Your task to perform on an android device: Show the shopping cart on ebay.com. Image 0: 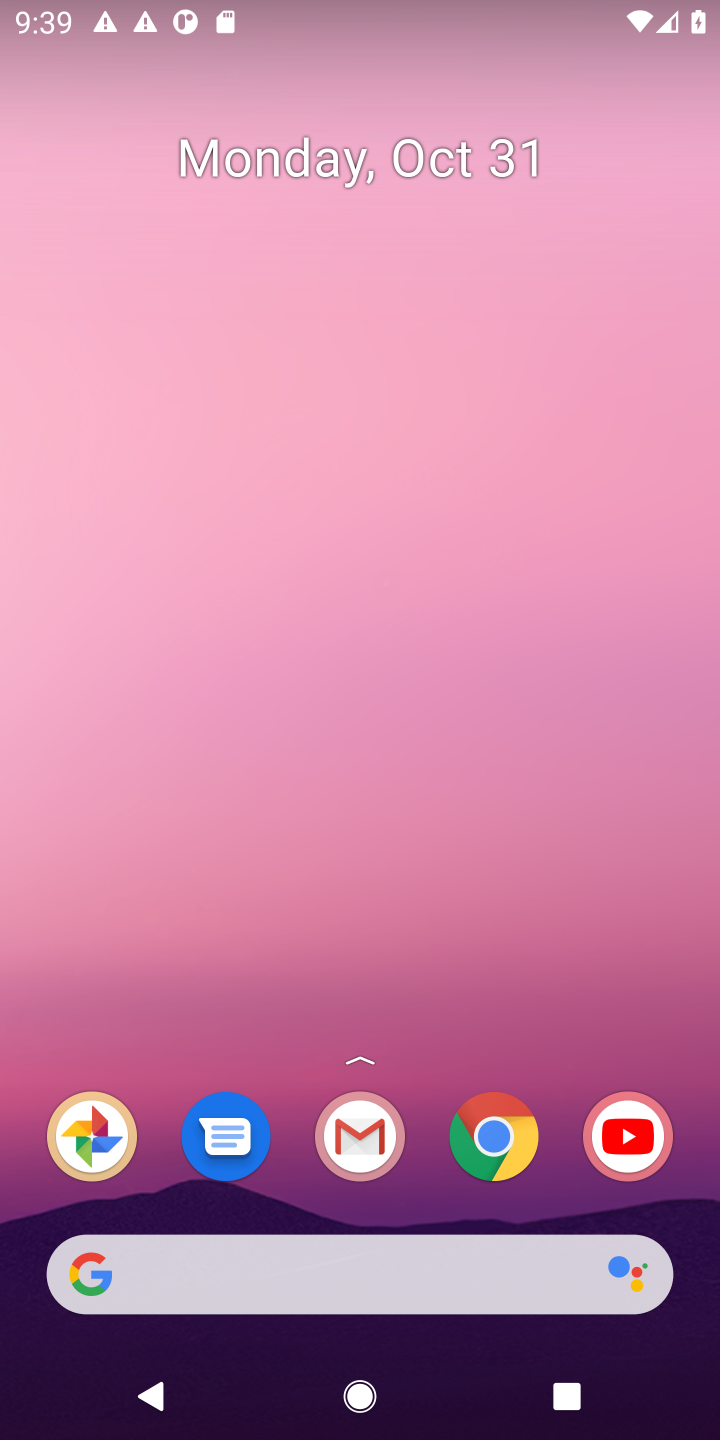
Step 0: click (134, 1268)
Your task to perform on an android device: Show the shopping cart on ebay.com. Image 1: 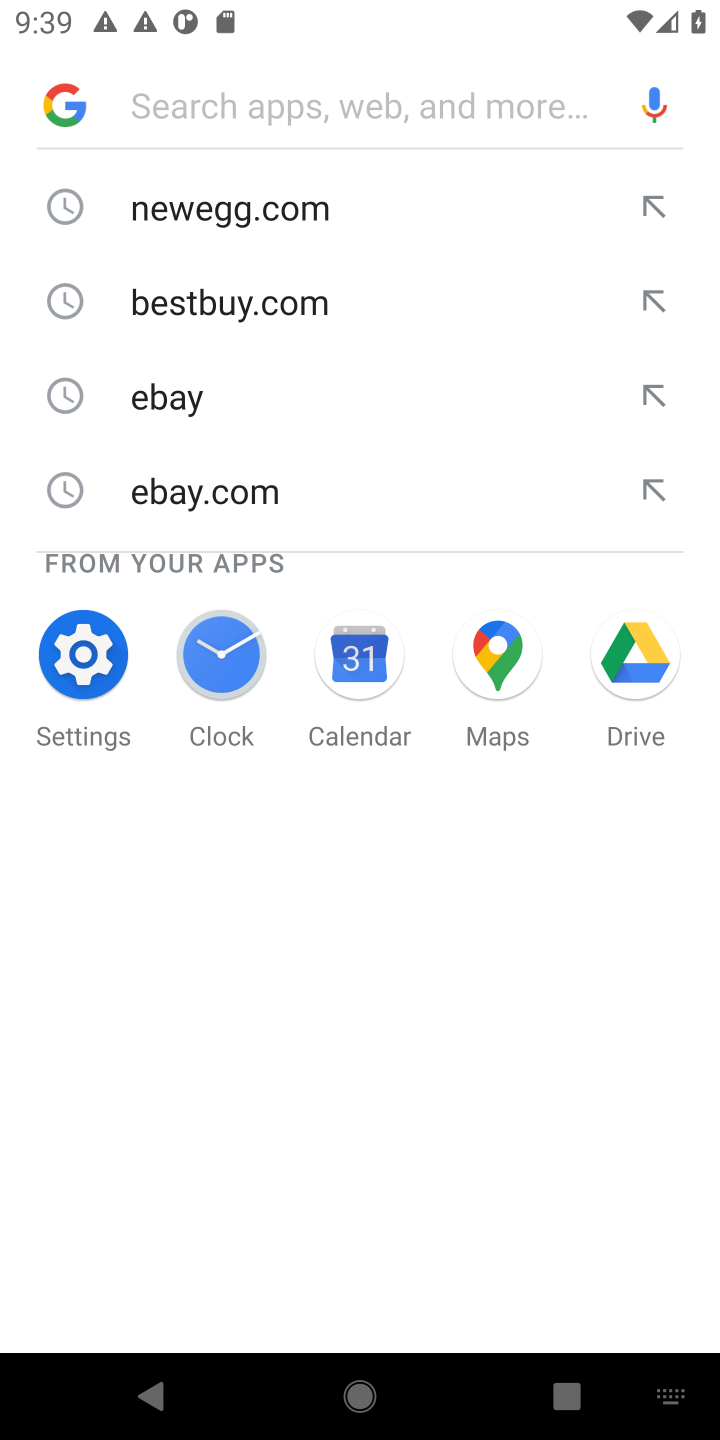
Step 1: click (215, 488)
Your task to perform on an android device: Show the shopping cart on ebay.com. Image 2: 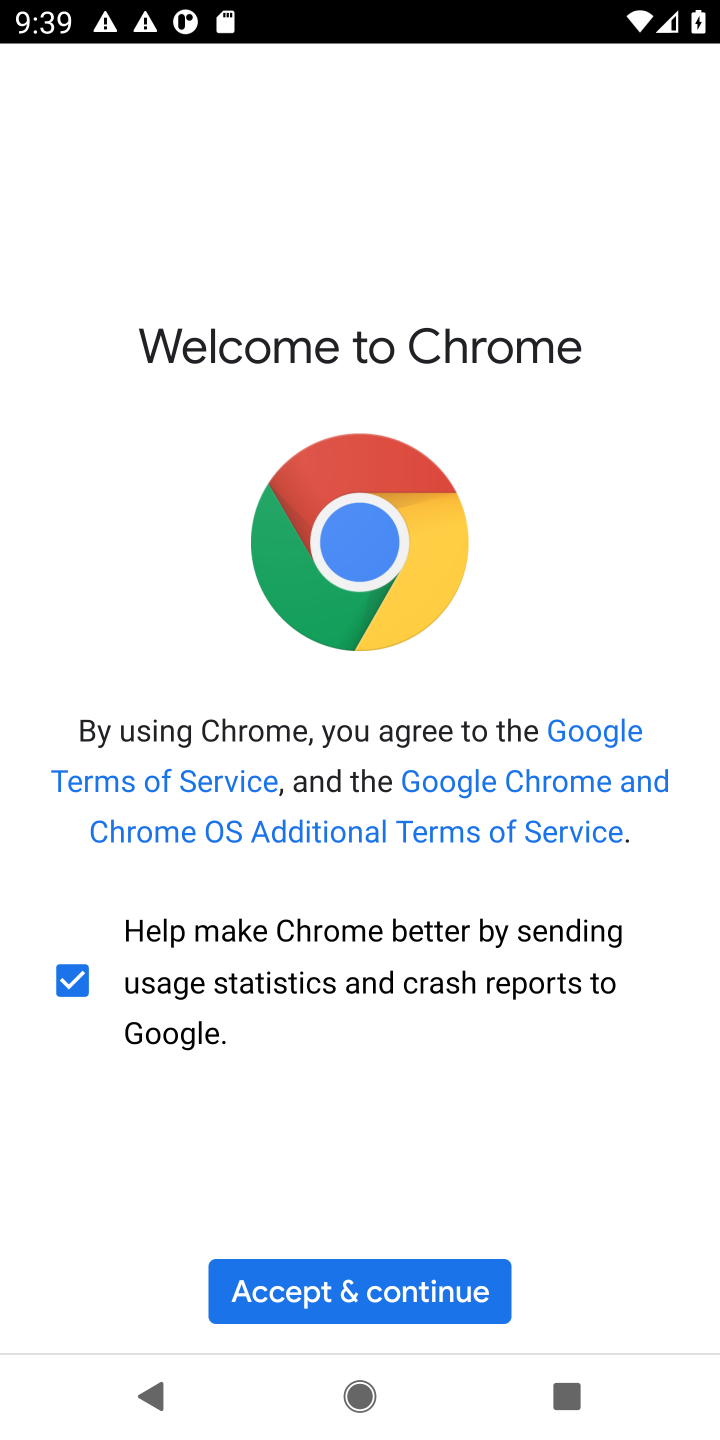
Step 2: click (349, 1299)
Your task to perform on an android device: Show the shopping cart on ebay.com. Image 3: 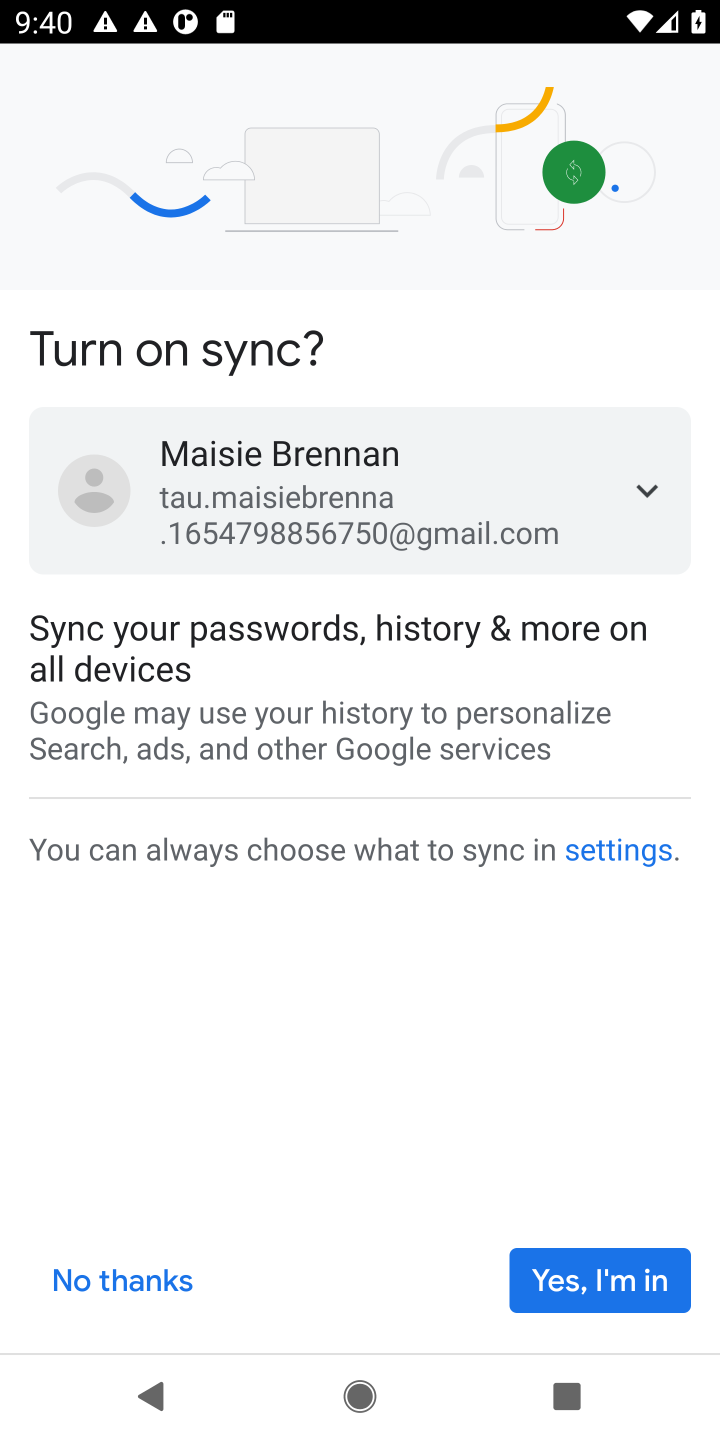
Step 3: click (607, 1271)
Your task to perform on an android device: Show the shopping cart on ebay.com. Image 4: 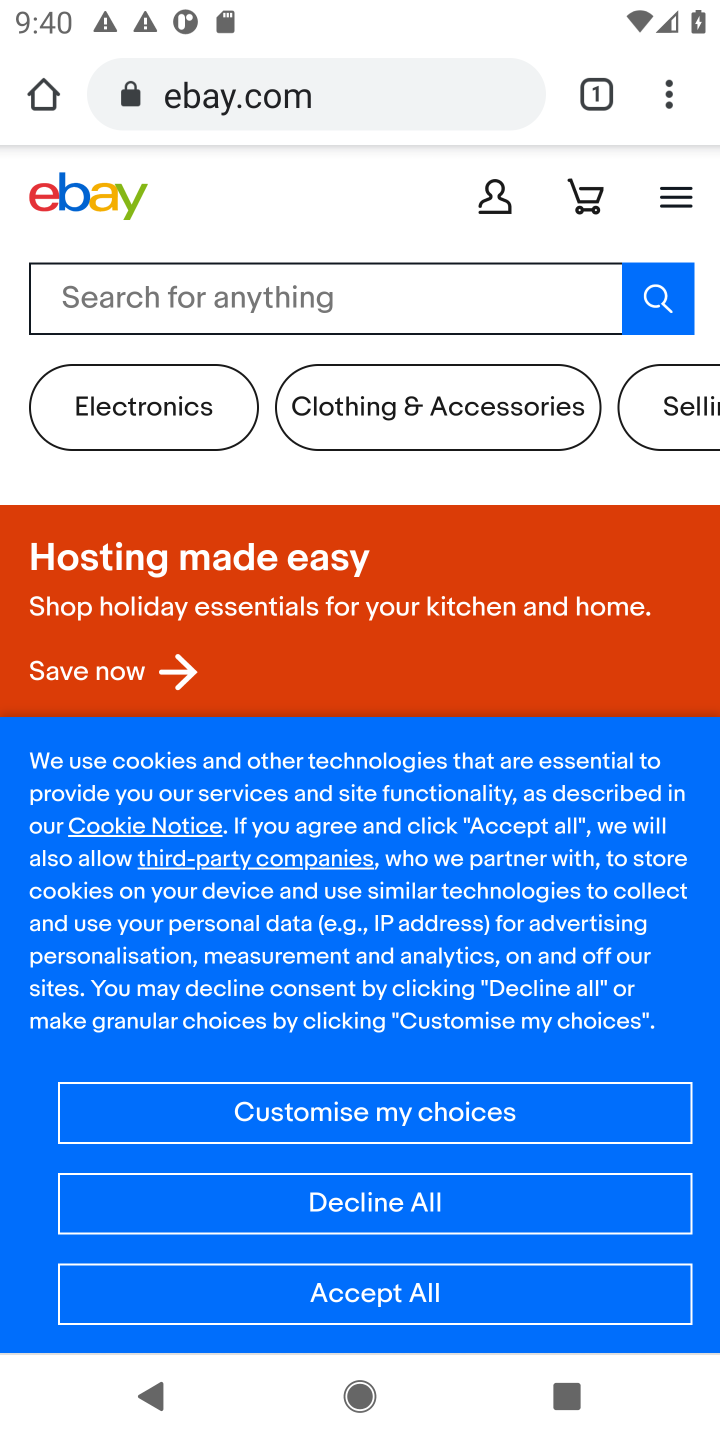
Step 4: click (593, 200)
Your task to perform on an android device: Show the shopping cart on ebay.com. Image 5: 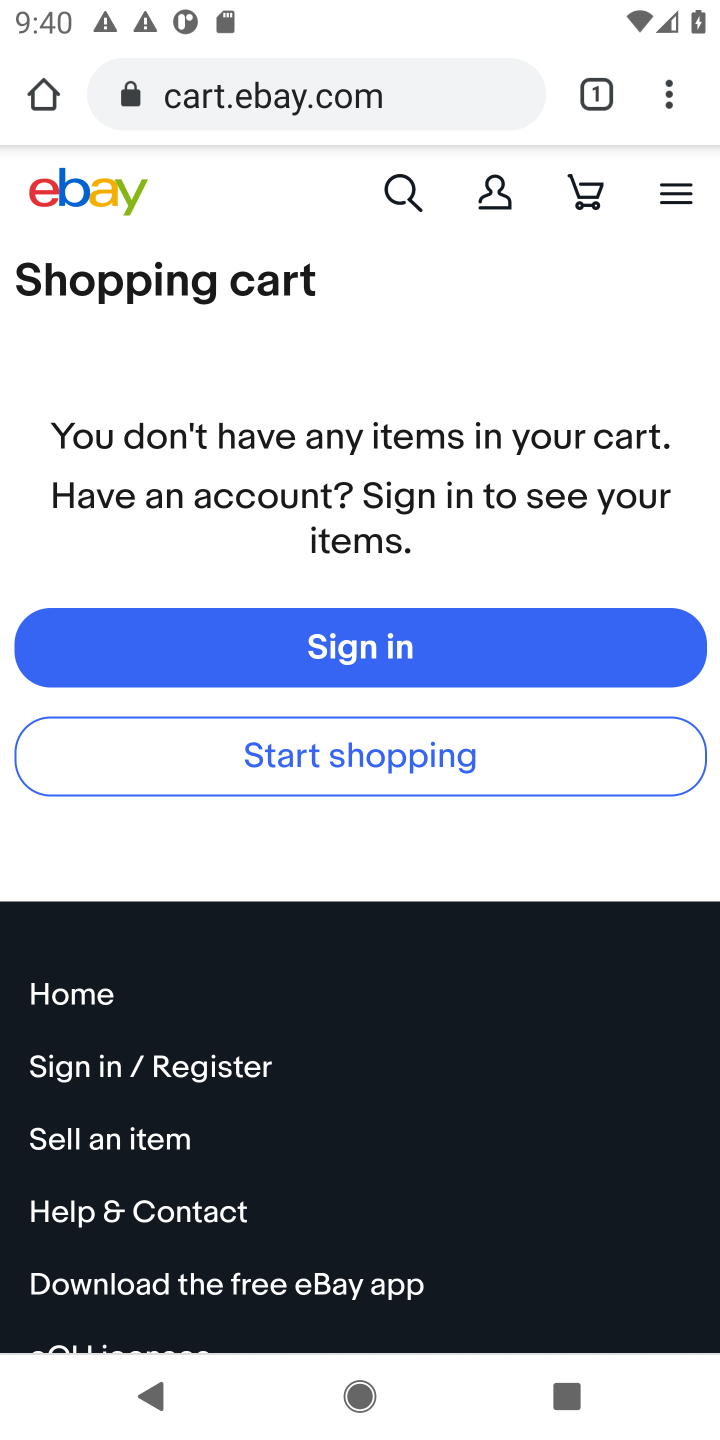
Step 5: task complete